Your task to perform on an android device: open app "Skype" (install if not already installed), go to login, and select forgot password Image 0: 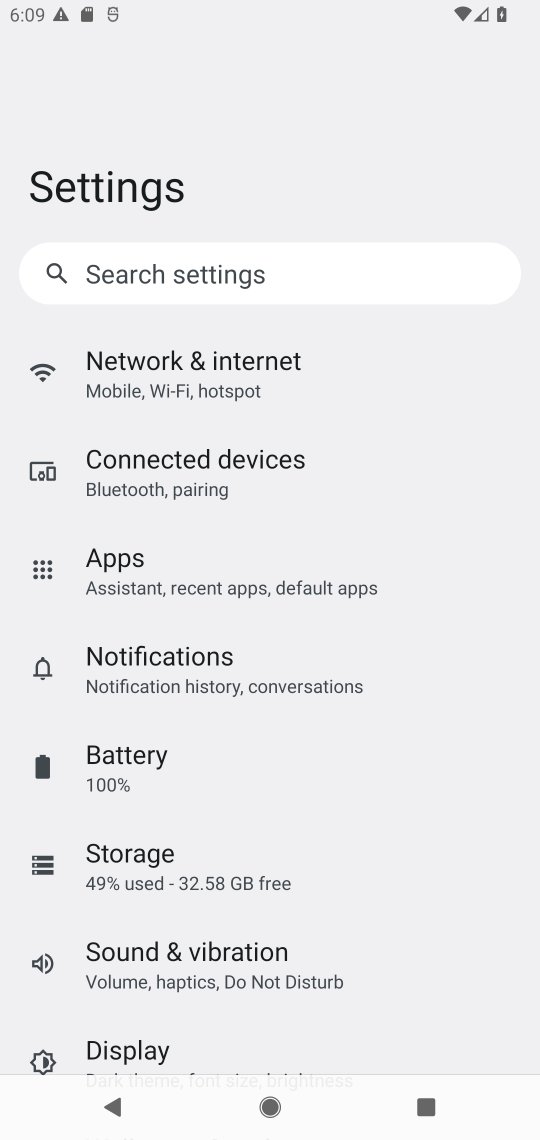
Step 0: press home button
Your task to perform on an android device: open app "Skype" (install if not already installed), go to login, and select forgot password Image 1: 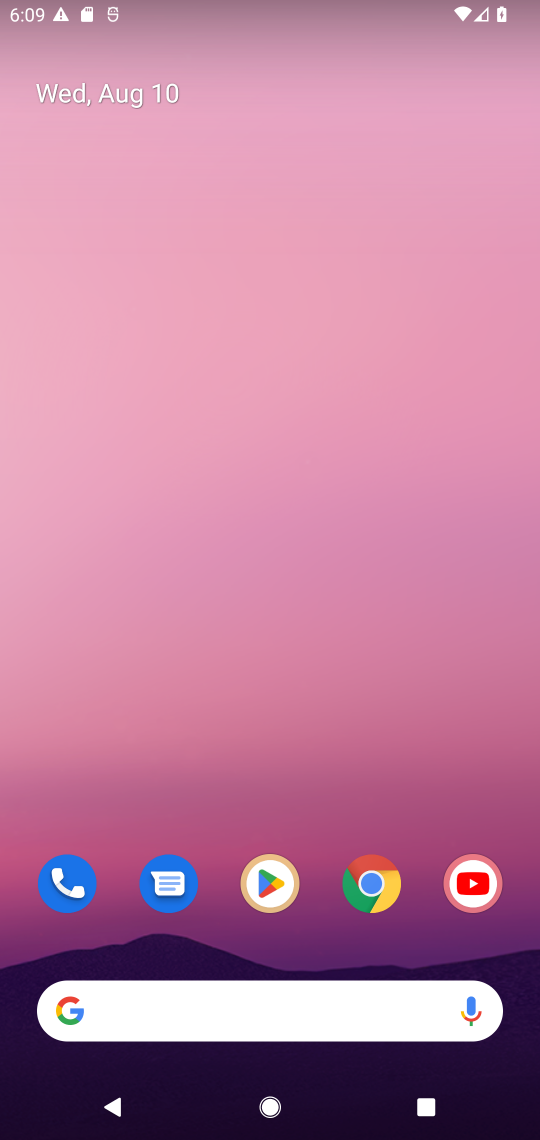
Step 1: click (274, 877)
Your task to perform on an android device: open app "Skype" (install if not already installed), go to login, and select forgot password Image 2: 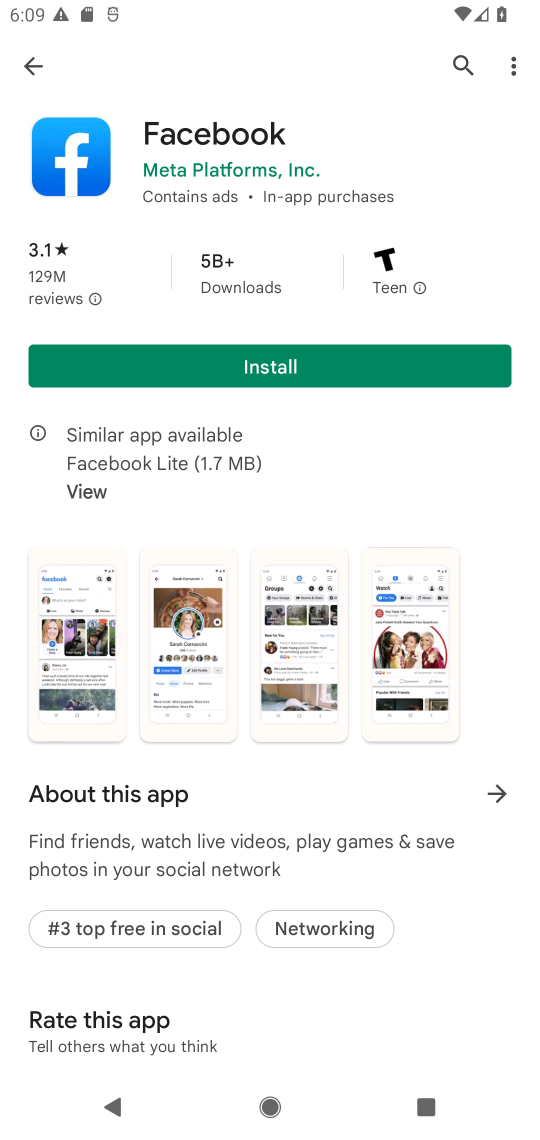
Step 2: click (463, 67)
Your task to perform on an android device: open app "Skype" (install if not already installed), go to login, and select forgot password Image 3: 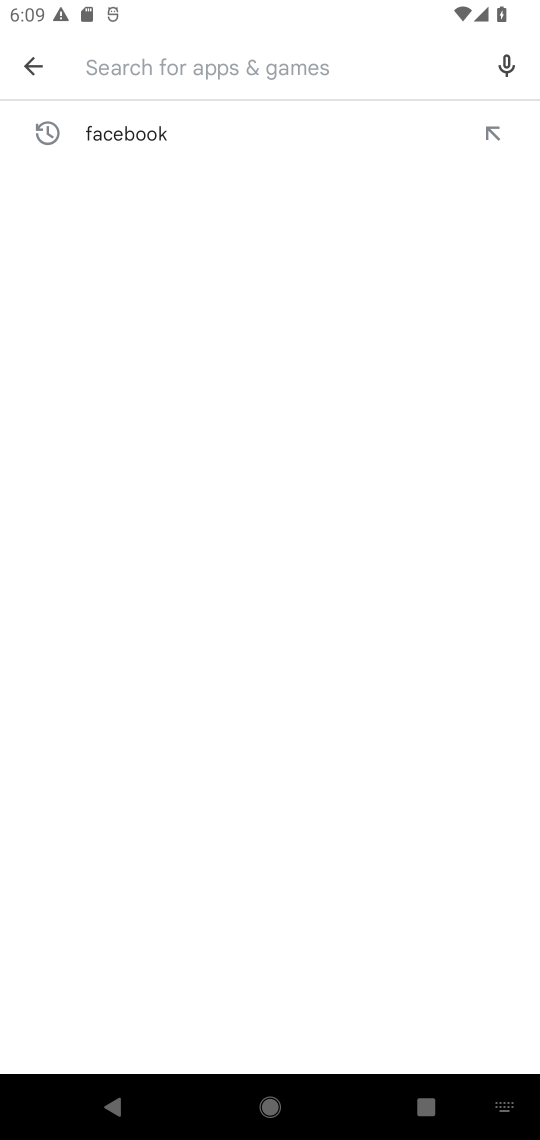
Step 3: type "Skype"
Your task to perform on an android device: open app "Skype" (install if not already installed), go to login, and select forgot password Image 4: 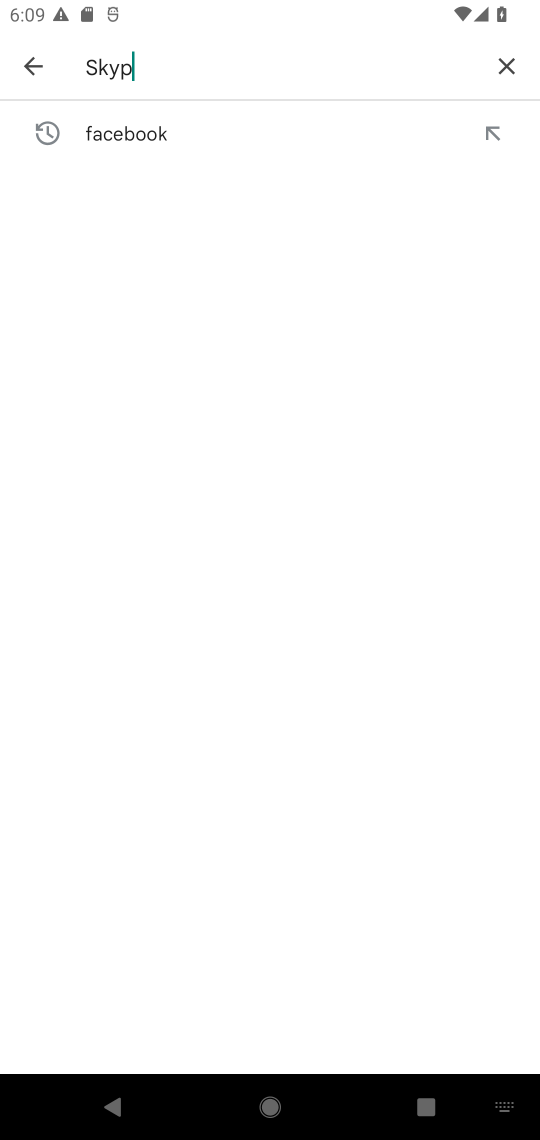
Step 4: type ""
Your task to perform on an android device: open app "Skype" (install if not already installed), go to login, and select forgot password Image 5: 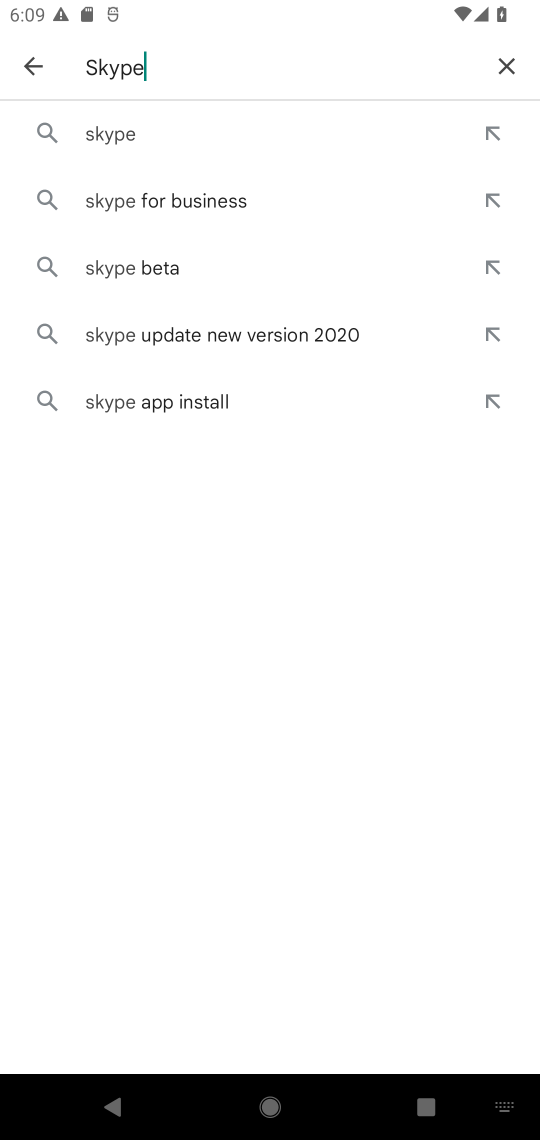
Step 5: click (102, 128)
Your task to perform on an android device: open app "Skype" (install if not already installed), go to login, and select forgot password Image 6: 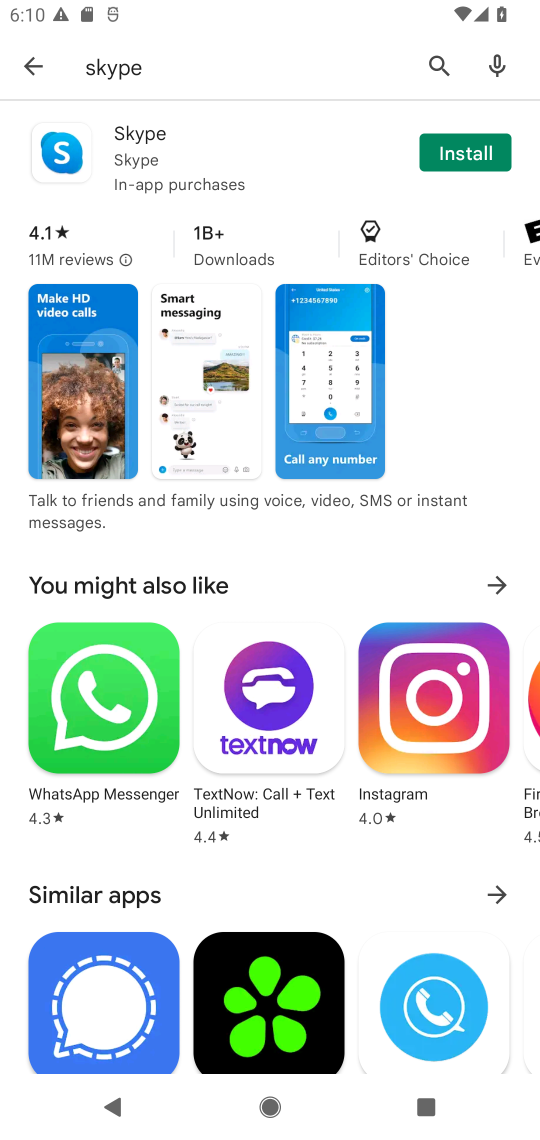
Step 6: click (466, 143)
Your task to perform on an android device: open app "Skype" (install if not already installed), go to login, and select forgot password Image 7: 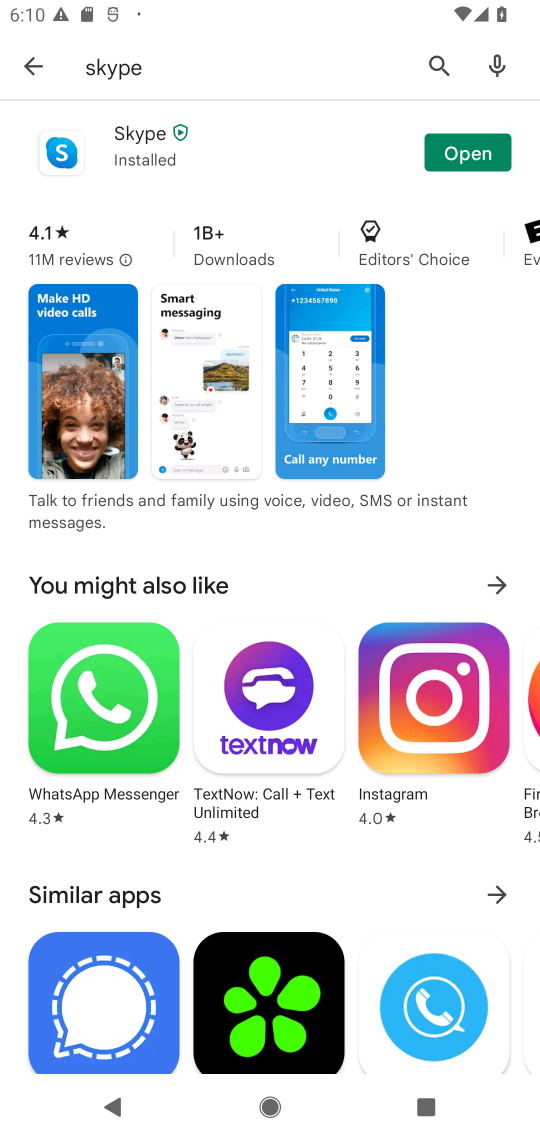
Step 7: click (446, 154)
Your task to perform on an android device: open app "Skype" (install if not already installed), go to login, and select forgot password Image 8: 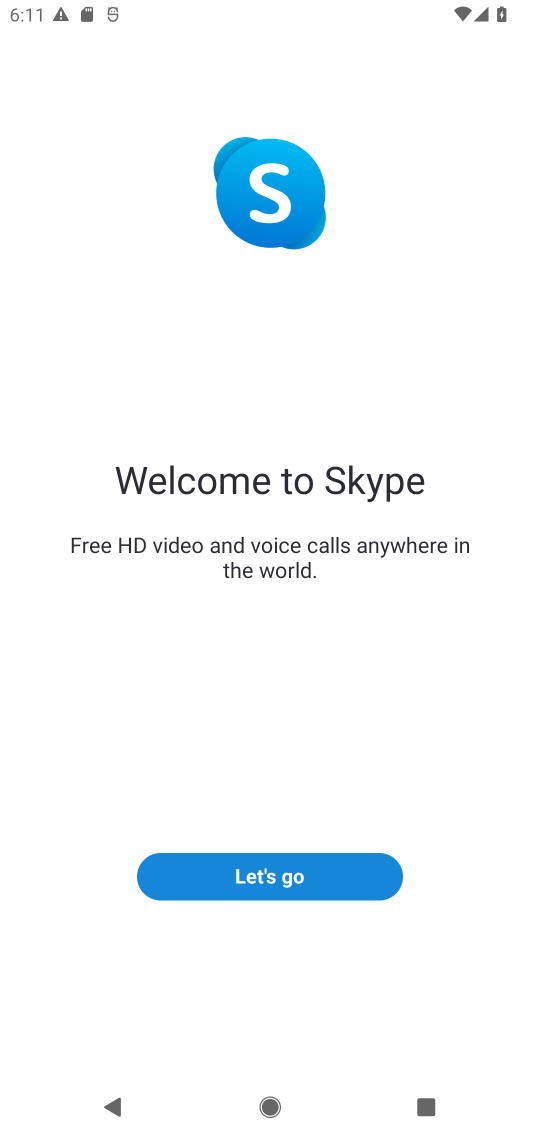
Step 8: click (287, 881)
Your task to perform on an android device: open app "Skype" (install if not already installed), go to login, and select forgot password Image 9: 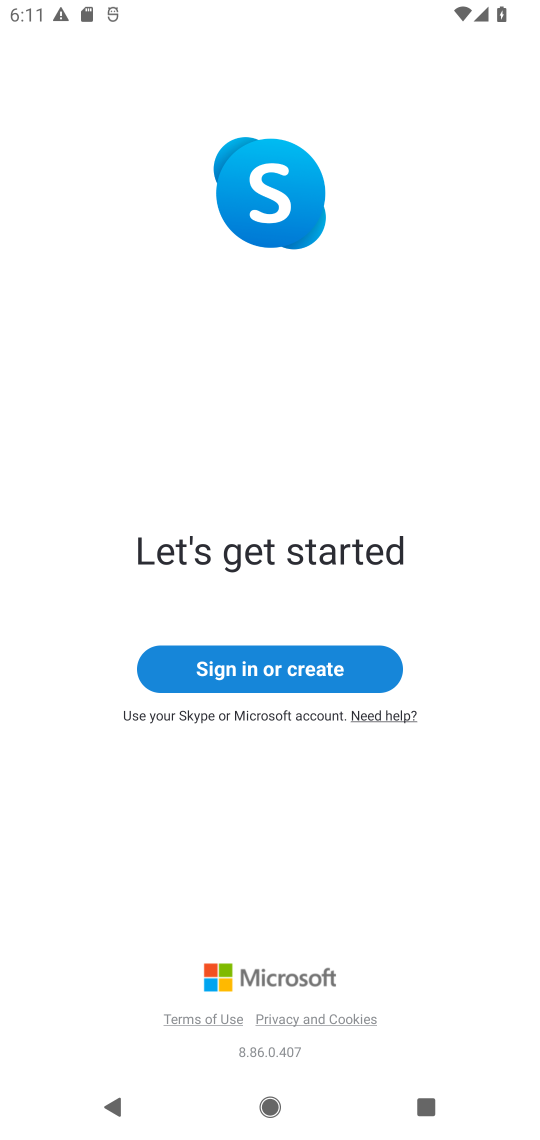
Step 9: click (269, 667)
Your task to perform on an android device: open app "Skype" (install if not already installed), go to login, and select forgot password Image 10: 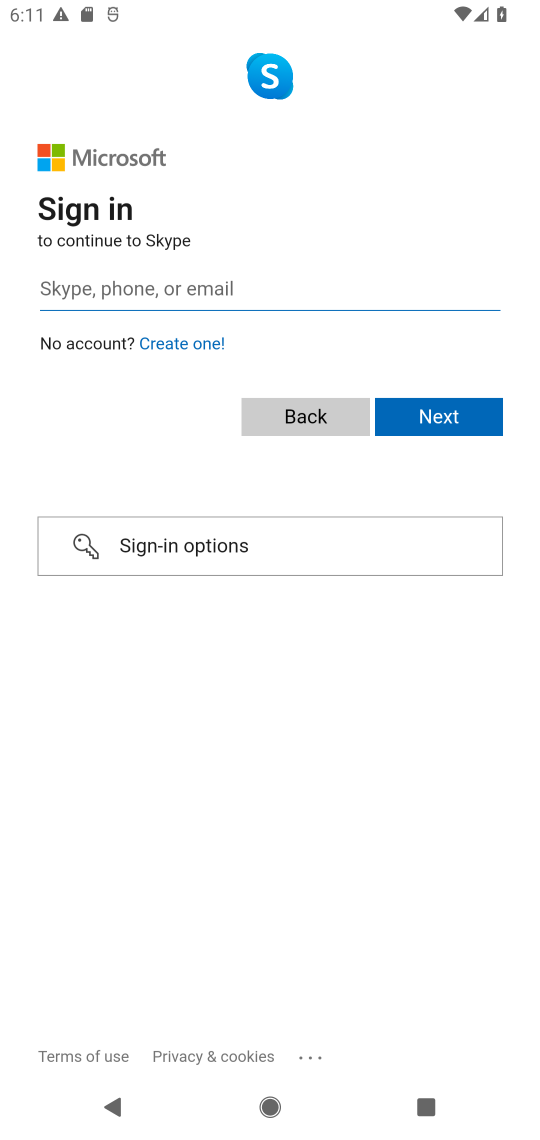
Step 10: click (220, 549)
Your task to perform on an android device: open app "Skype" (install if not already installed), go to login, and select forgot password Image 11: 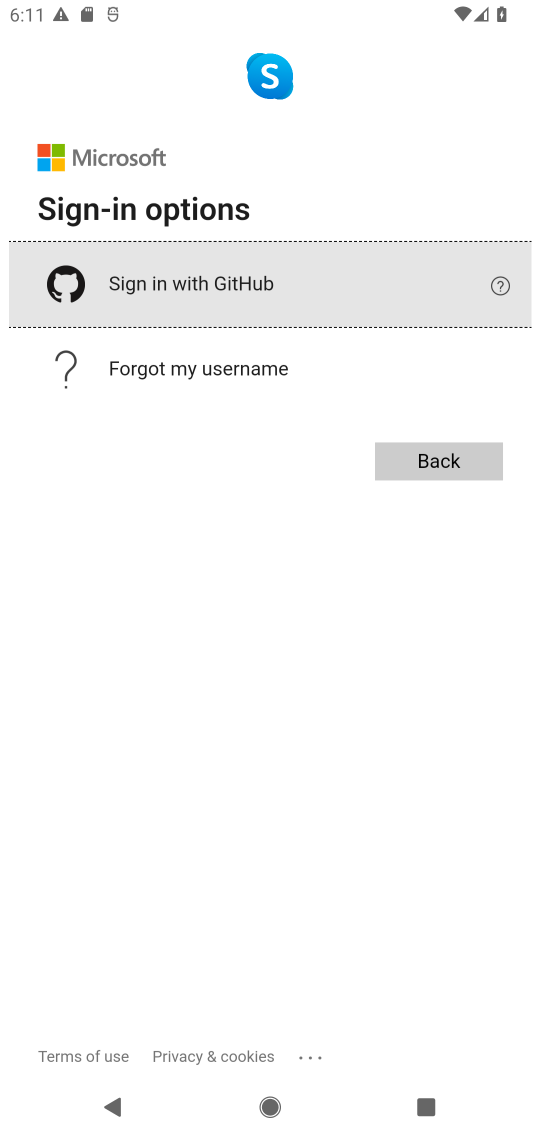
Step 11: click (217, 367)
Your task to perform on an android device: open app "Skype" (install if not already installed), go to login, and select forgot password Image 12: 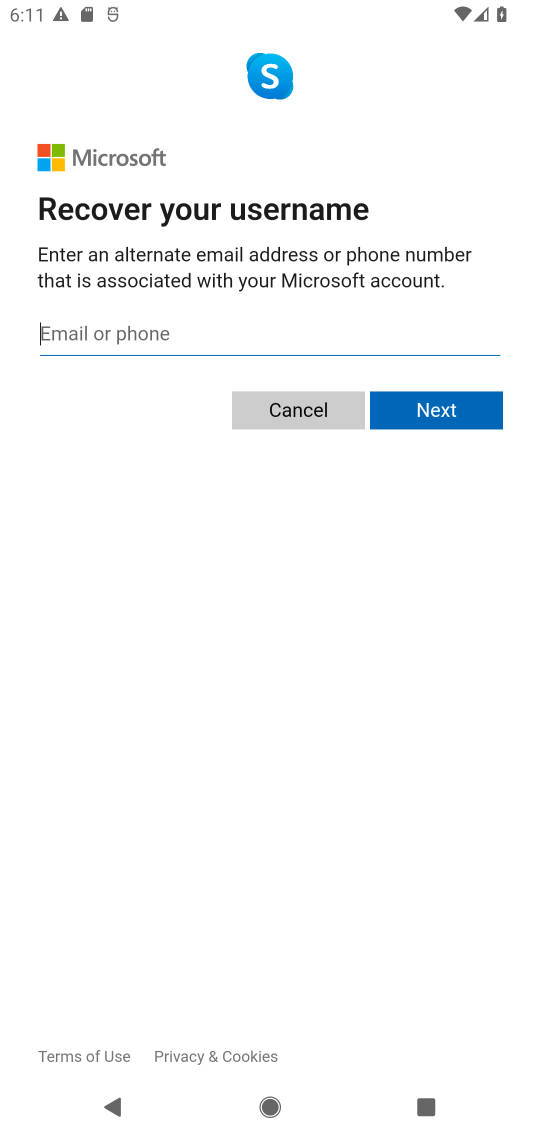
Step 12: task complete